Your task to perform on an android device: change text size in settings app Image 0: 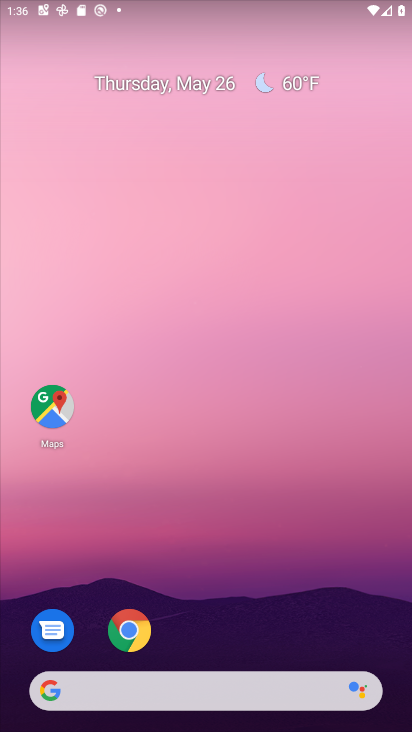
Step 0: drag from (378, 384) to (405, 166)
Your task to perform on an android device: change text size in settings app Image 1: 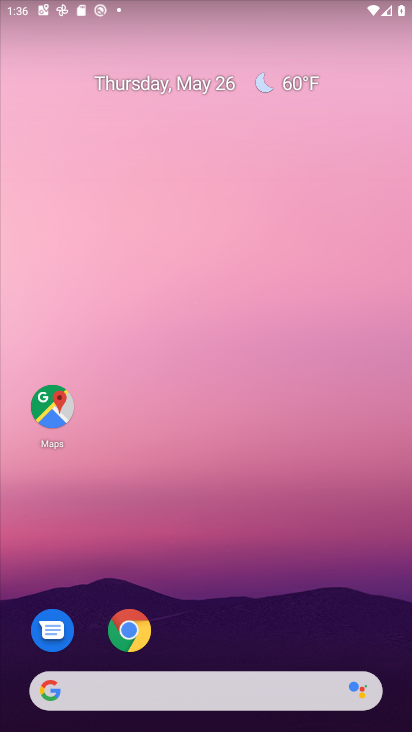
Step 1: drag from (330, 548) to (401, 40)
Your task to perform on an android device: change text size in settings app Image 2: 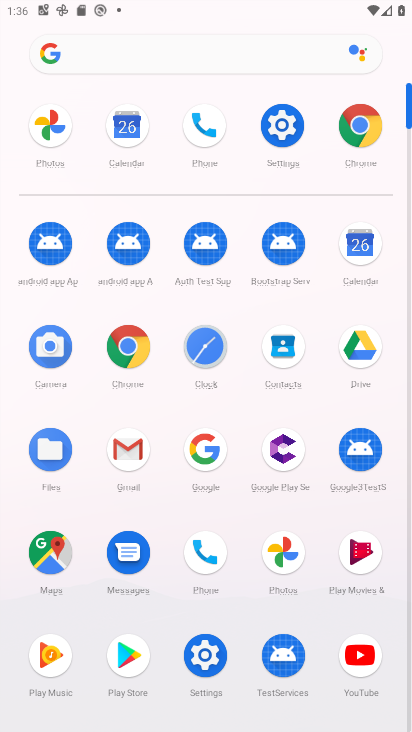
Step 2: click (276, 135)
Your task to perform on an android device: change text size in settings app Image 3: 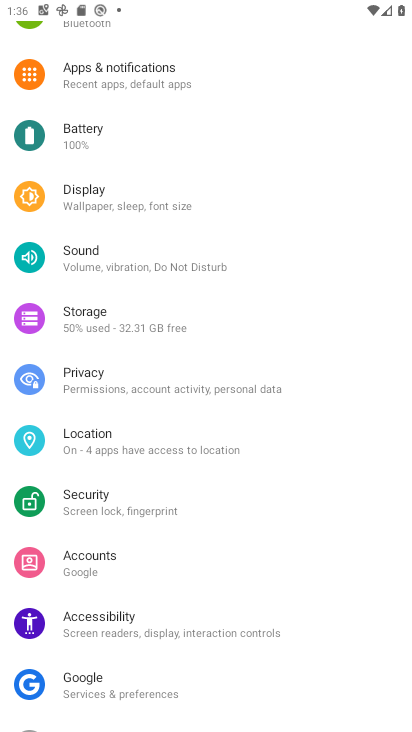
Step 3: drag from (273, 196) to (295, 600)
Your task to perform on an android device: change text size in settings app Image 4: 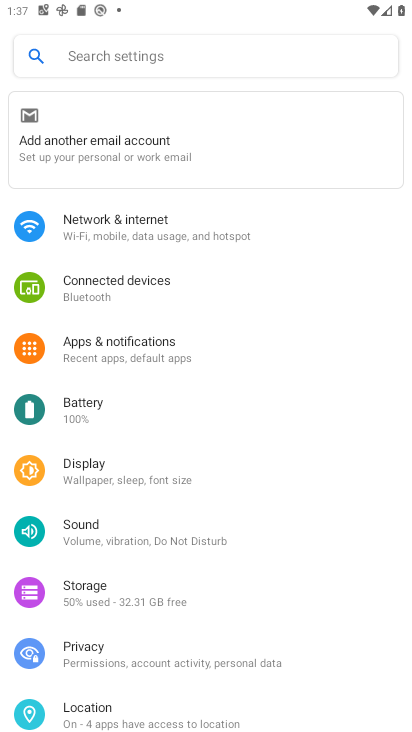
Step 4: drag from (161, 516) to (251, 157)
Your task to perform on an android device: change text size in settings app Image 5: 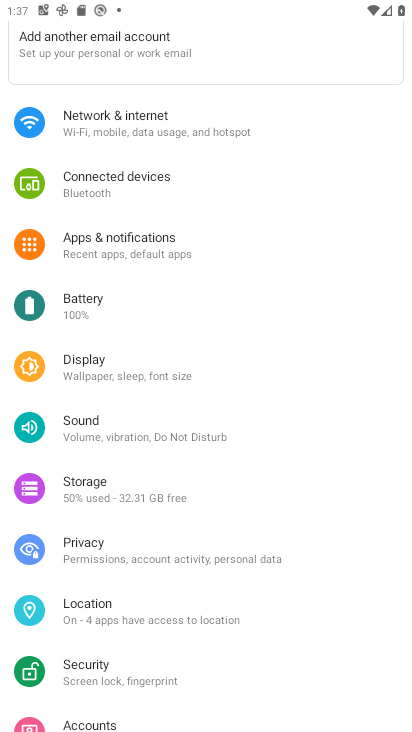
Step 5: drag from (232, 253) to (296, 689)
Your task to perform on an android device: change text size in settings app Image 6: 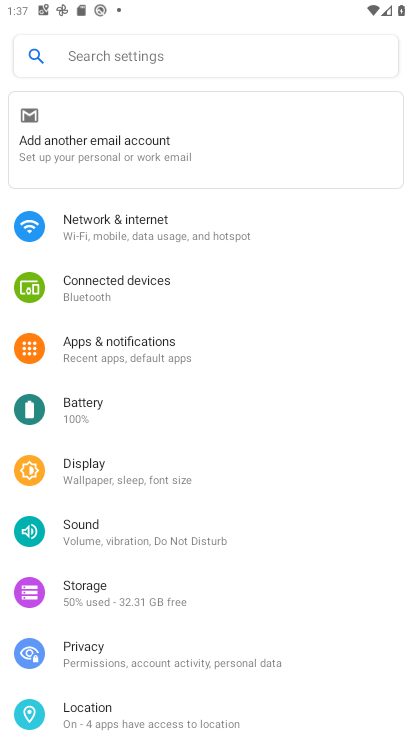
Step 6: drag from (230, 604) to (227, 252)
Your task to perform on an android device: change text size in settings app Image 7: 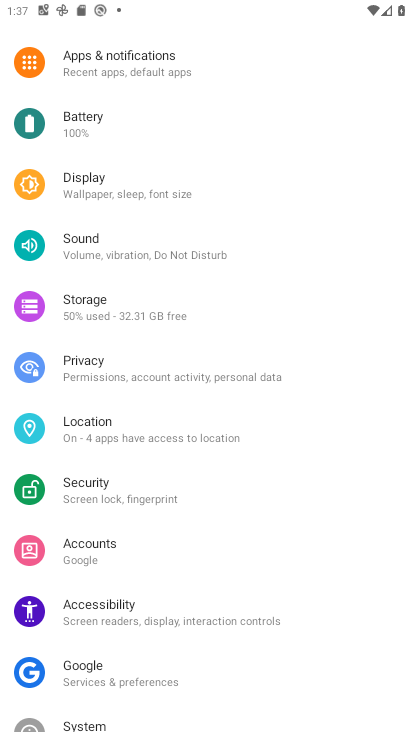
Step 7: drag from (250, 620) to (281, 274)
Your task to perform on an android device: change text size in settings app Image 8: 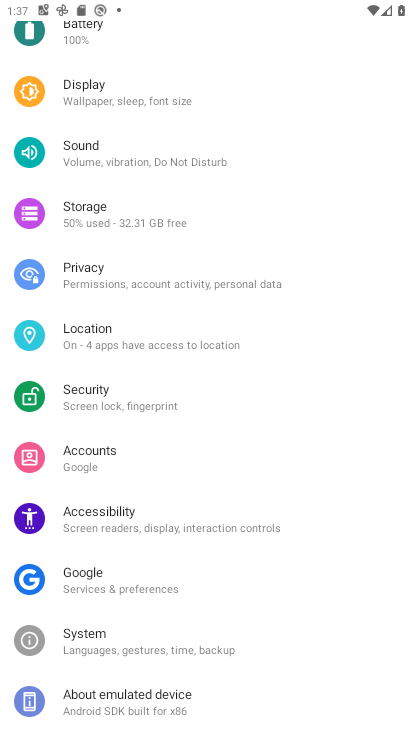
Step 8: drag from (227, 628) to (248, 252)
Your task to perform on an android device: change text size in settings app Image 9: 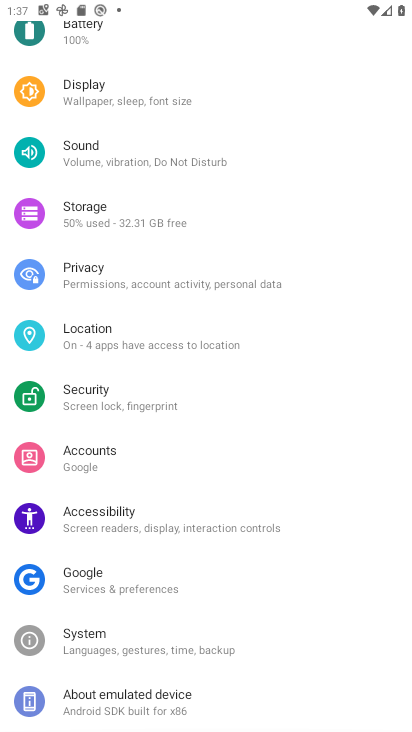
Step 9: drag from (248, 252) to (278, 582)
Your task to perform on an android device: change text size in settings app Image 10: 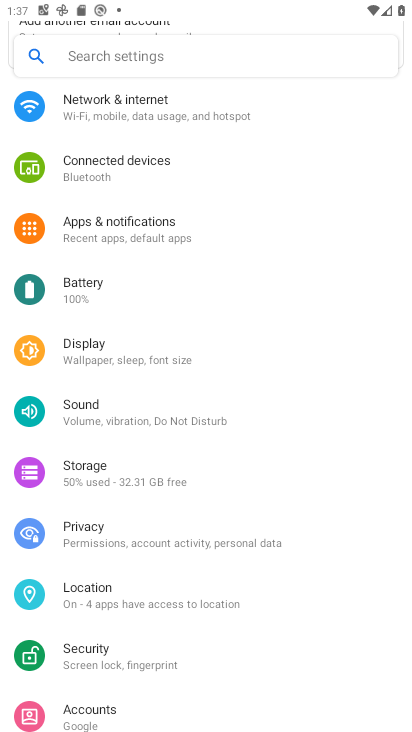
Step 10: drag from (267, 292) to (270, 629)
Your task to perform on an android device: change text size in settings app Image 11: 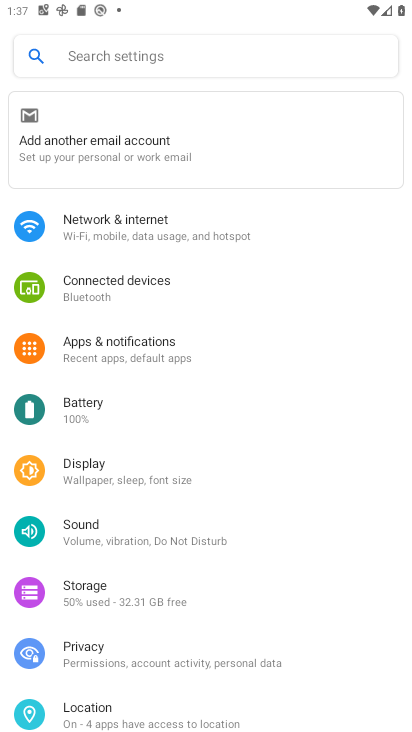
Step 11: click (127, 472)
Your task to perform on an android device: change text size in settings app Image 12: 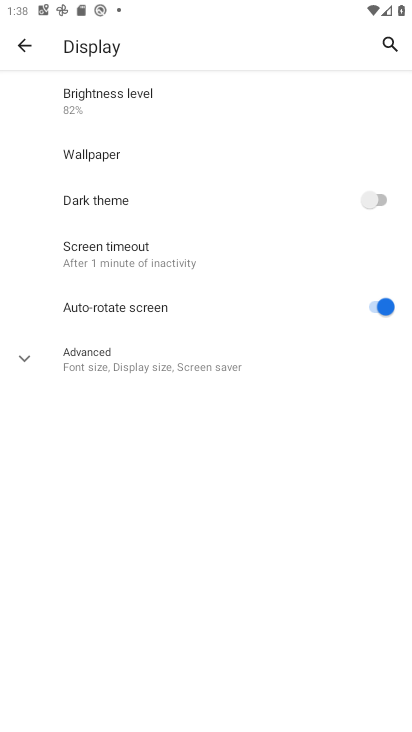
Step 12: click (123, 360)
Your task to perform on an android device: change text size in settings app Image 13: 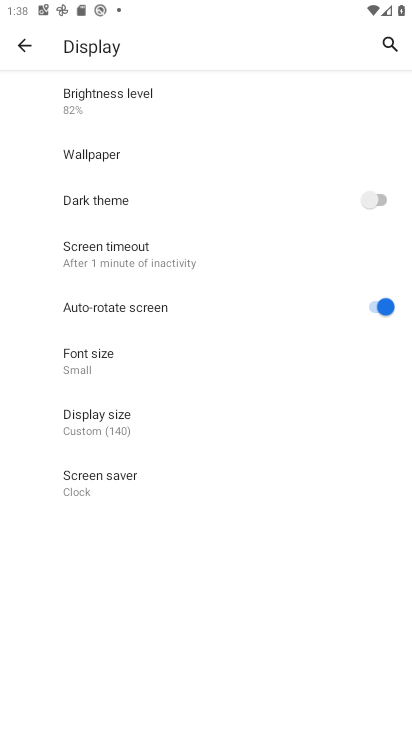
Step 13: click (79, 358)
Your task to perform on an android device: change text size in settings app Image 14: 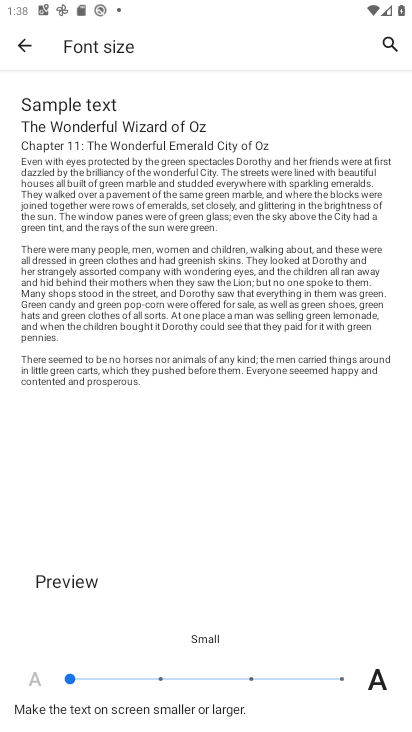
Step 14: click (136, 678)
Your task to perform on an android device: change text size in settings app Image 15: 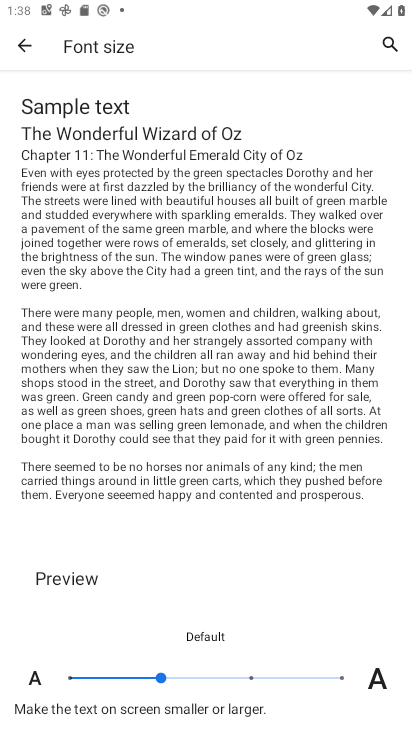
Step 15: task complete